Your task to perform on an android device: Open eBay Image 0: 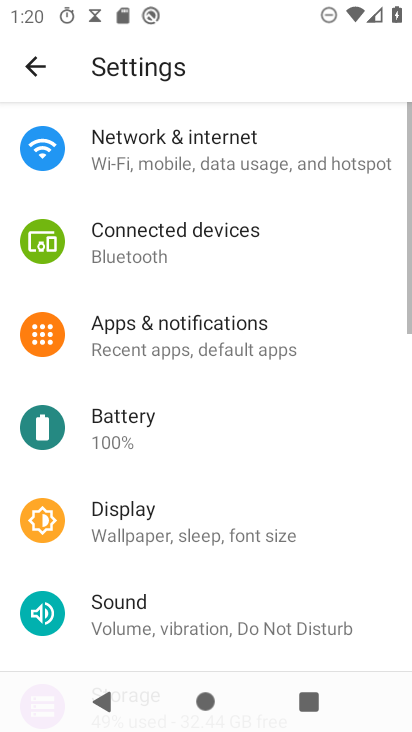
Step 0: press home button
Your task to perform on an android device: Open eBay Image 1: 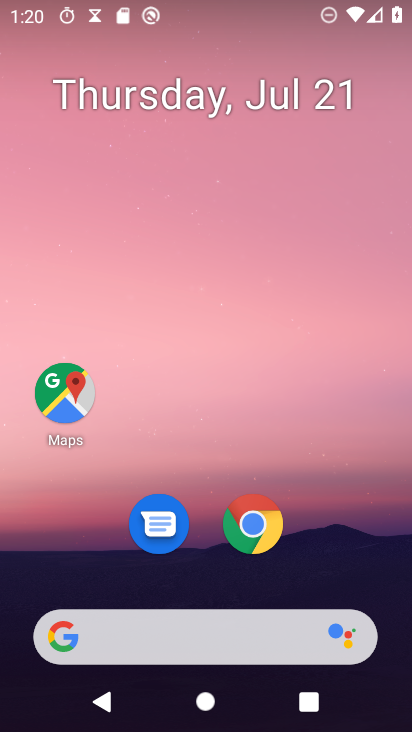
Step 1: click (242, 526)
Your task to perform on an android device: Open eBay Image 2: 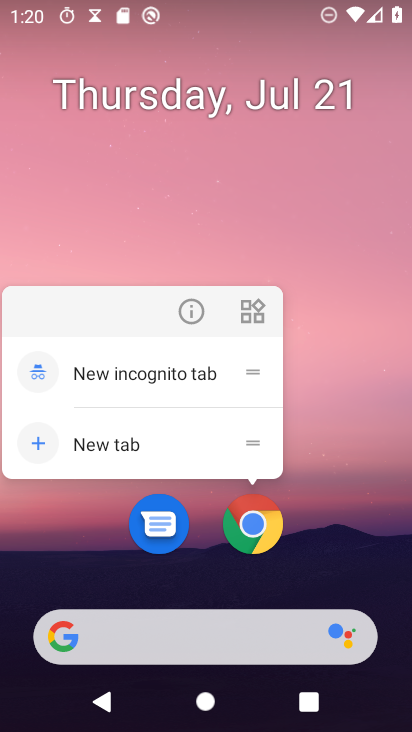
Step 2: click (252, 521)
Your task to perform on an android device: Open eBay Image 3: 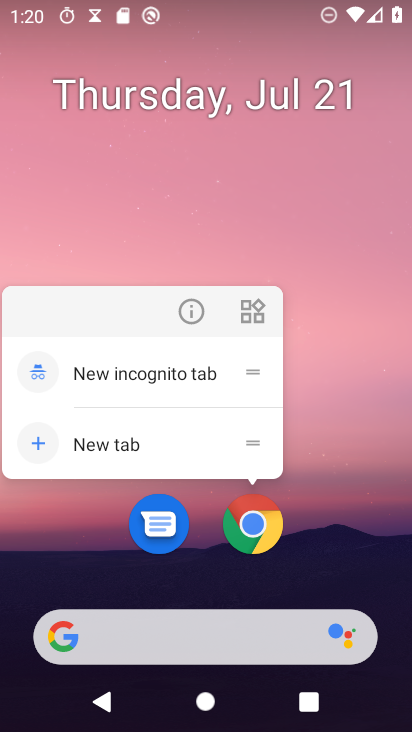
Step 3: click (255, 521)
Your task to perform on an android device: Open eBay Image 4: 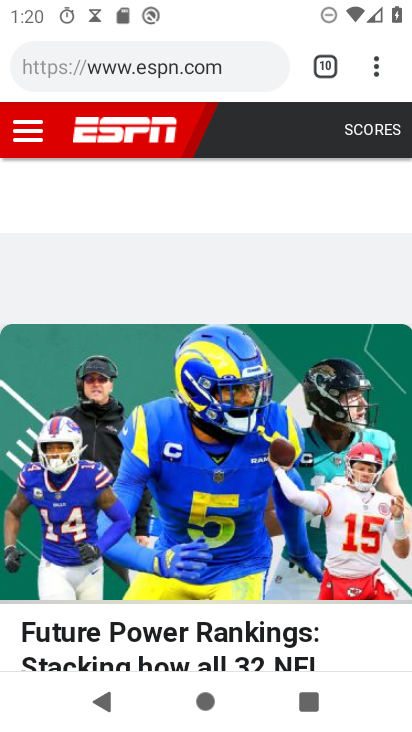
Step 4: drag from (376, 73) to (163, 137)
Your task to perform on an android device: Open eBay Image 5: 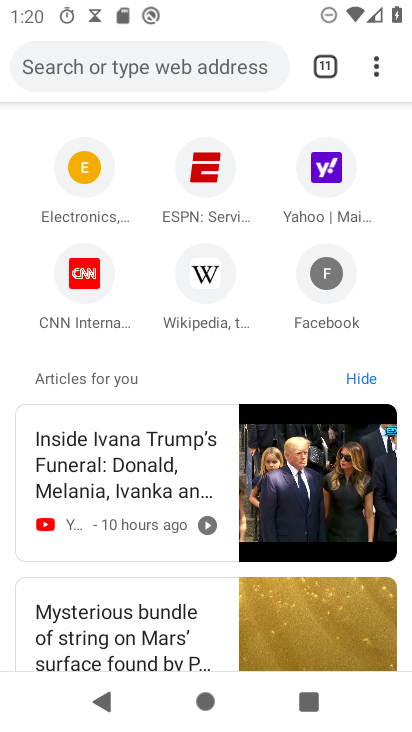
Step 5: click (115, 64)
Your task to perform on an android device: Open eBay Image 6: 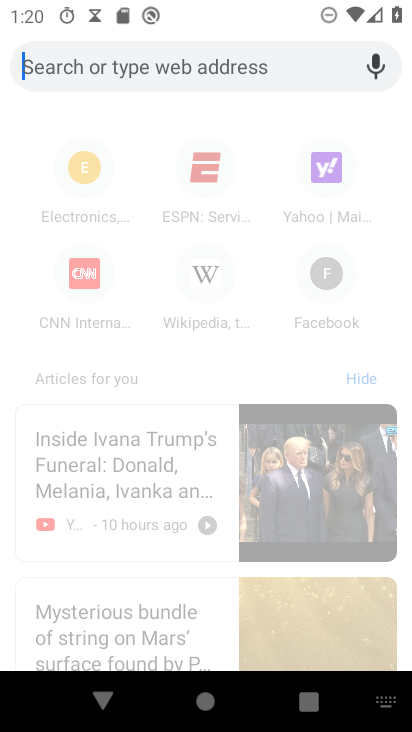
Step 6: type "ebay"
Your task to perform on an android device: Open eBay Image 7: 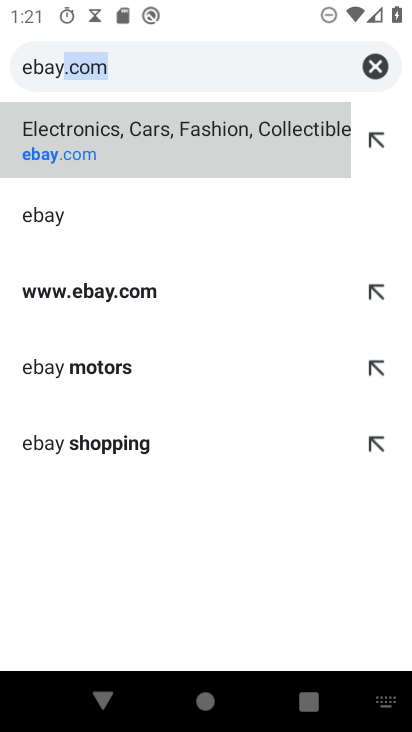
Step 7: click (115, 132)
Your task to perform on an android device: Open eBay Image 8: 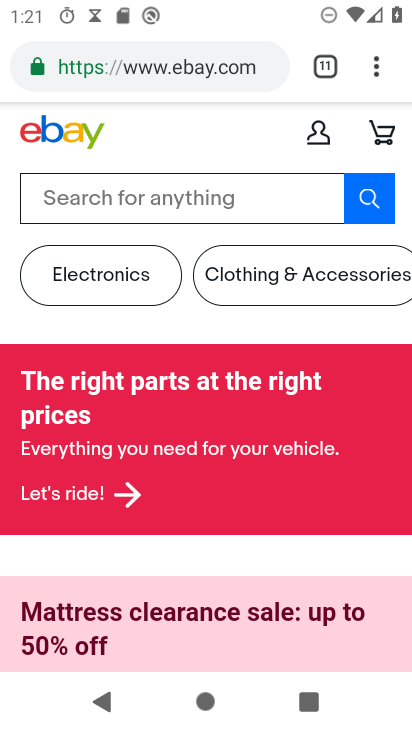
Step 8: task complete